Your task to perform on an android device: open wifi settings Image 0: 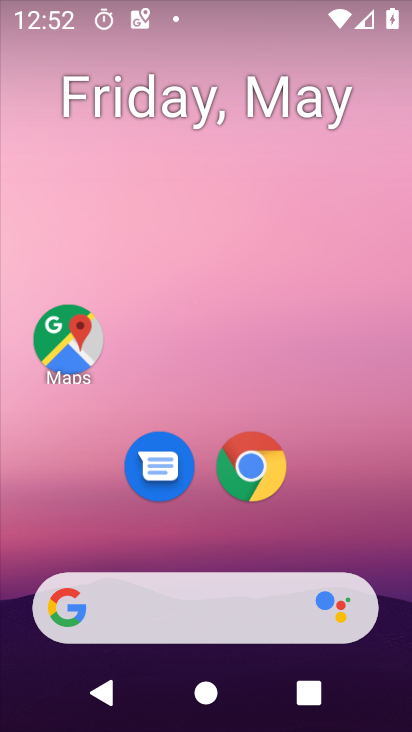
Step 0: drag from (382, 632) to (338, 249)
Your task to perform on an android device: open wifi settings Image 1: 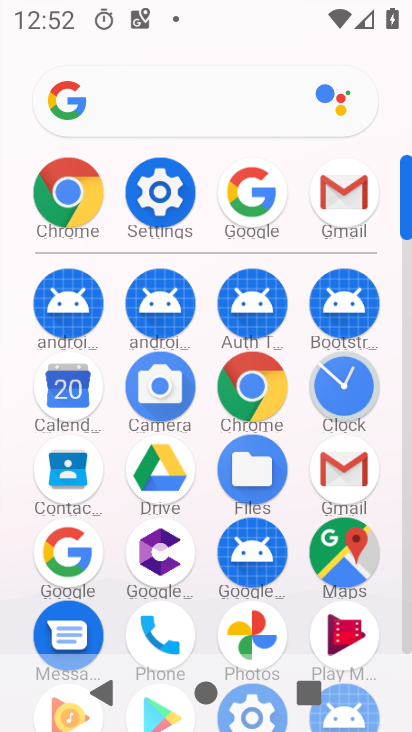
Step 1: click (172, 184)
Your task to perform on an android device: open wifi settings Image 2: 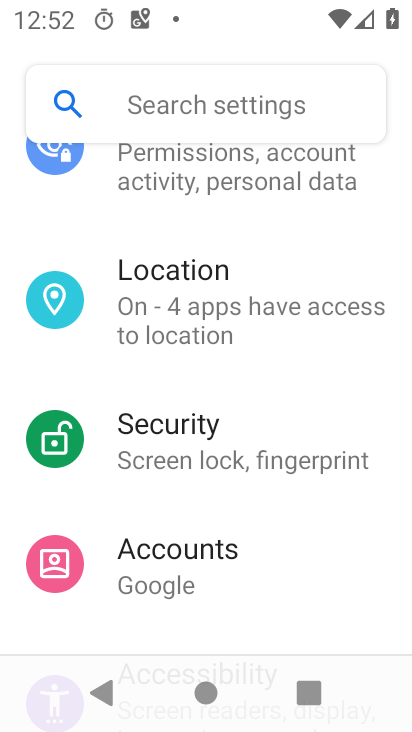
Step 2: drag from (172, 184) to (193, 459)
Your task to perform on an android device: open wifi settings Image 3: 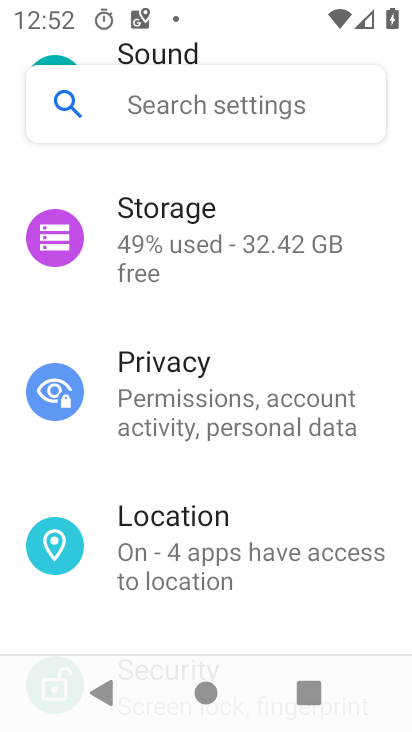
Step 3: drag from (232, 262) to (257, 664)
Your task to perform on an android device: open wifi settings Image 4: 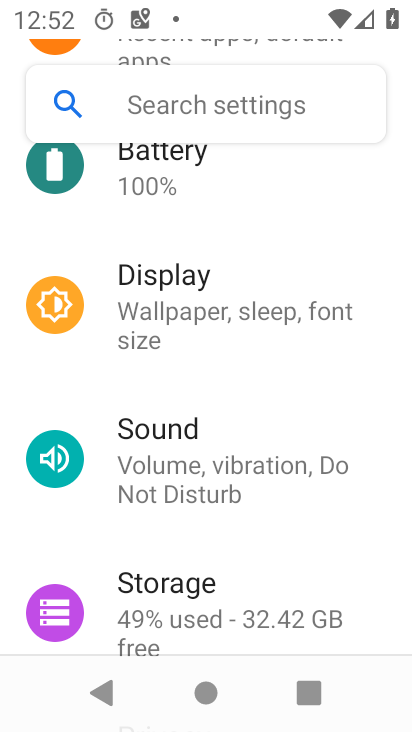
Step 4: drag from (283, 284) to (330, 569)
Your task to perform on an android device: open wifi settings Image 5: 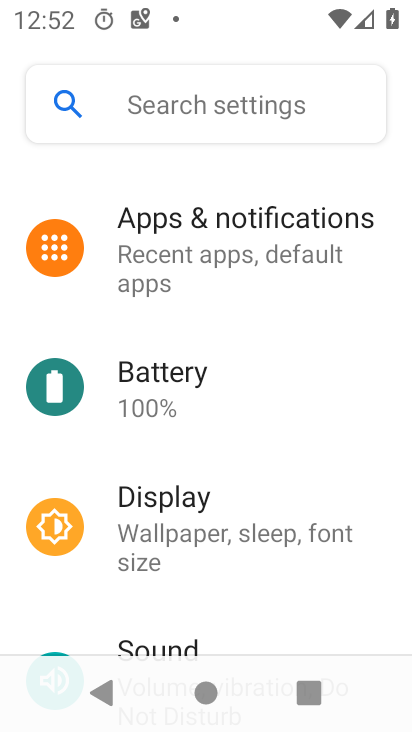
Step 5: drag from (268, 240) to (327, 585)
Your task to perform on an android device: open wifi settings Image 6: 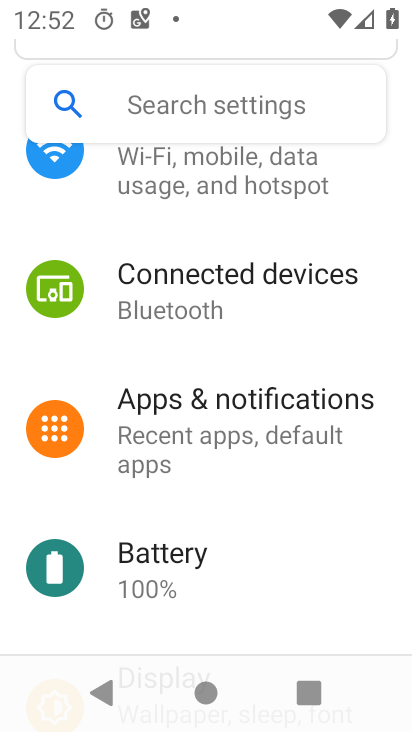
Step 6: drag from (242, 317) to (258, 550)
Your task to perform on an android device: open wifi settings Image 7: 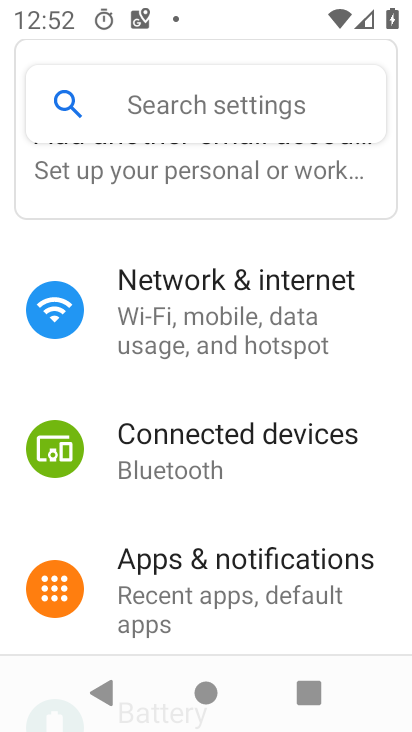
Step 7: click (248, 292)
Your task to perform on an android device: open wifi settings Image 8: 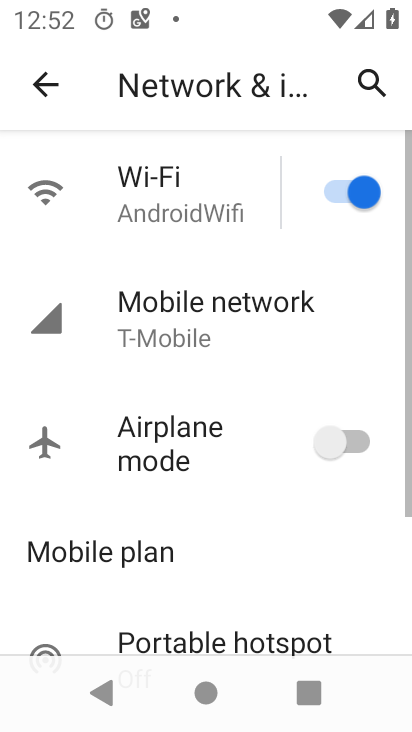
Step 8: click (210, 179)
Your task to perform on an android device: open wifi settings Image 9: 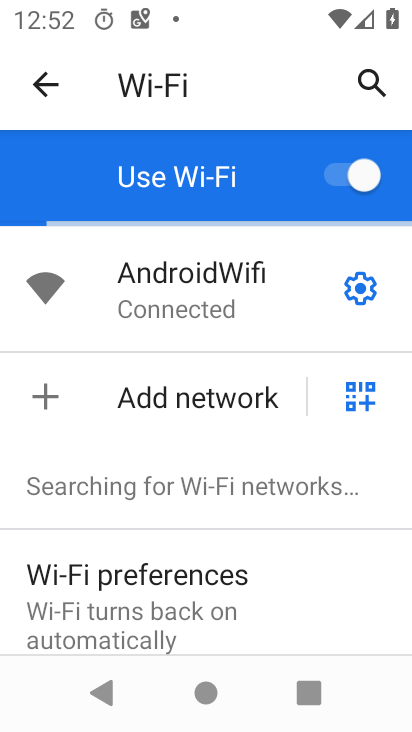
Step 9: task complete